Your task to perform on an android device: Open sound settings Image 0: 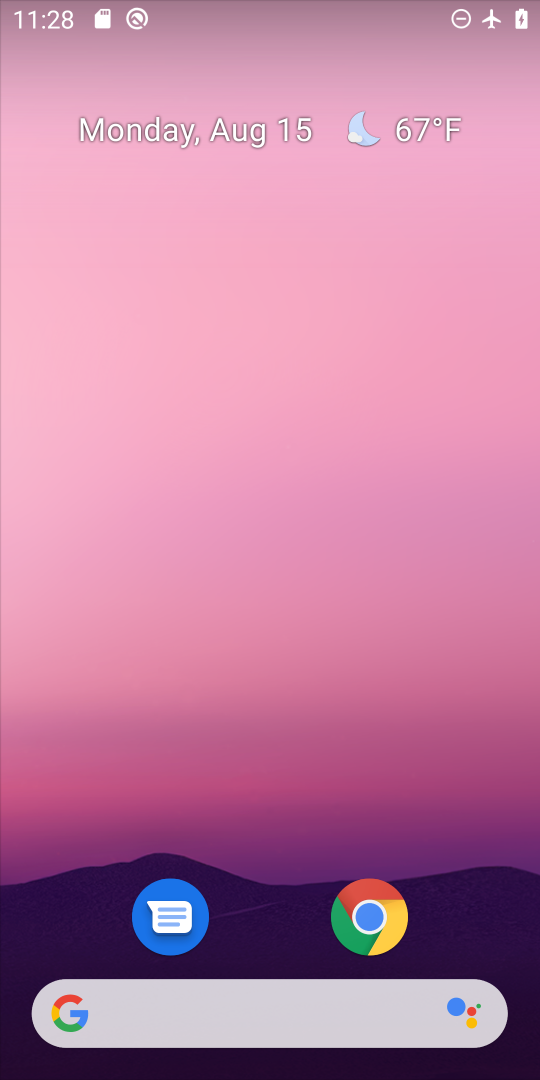
Step 0: drag from (296, 616) to (322, 0)
Your task to perform on an android device: Open sound settings Image 1: 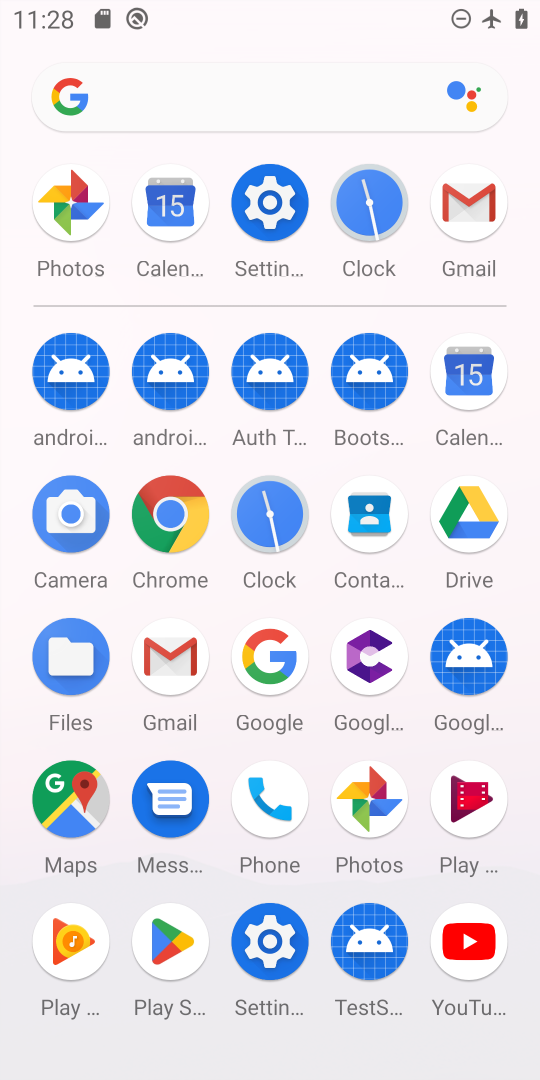
Step 1: click (279, 198)
Your task to perform on an android device: Open sound settings Image 2: 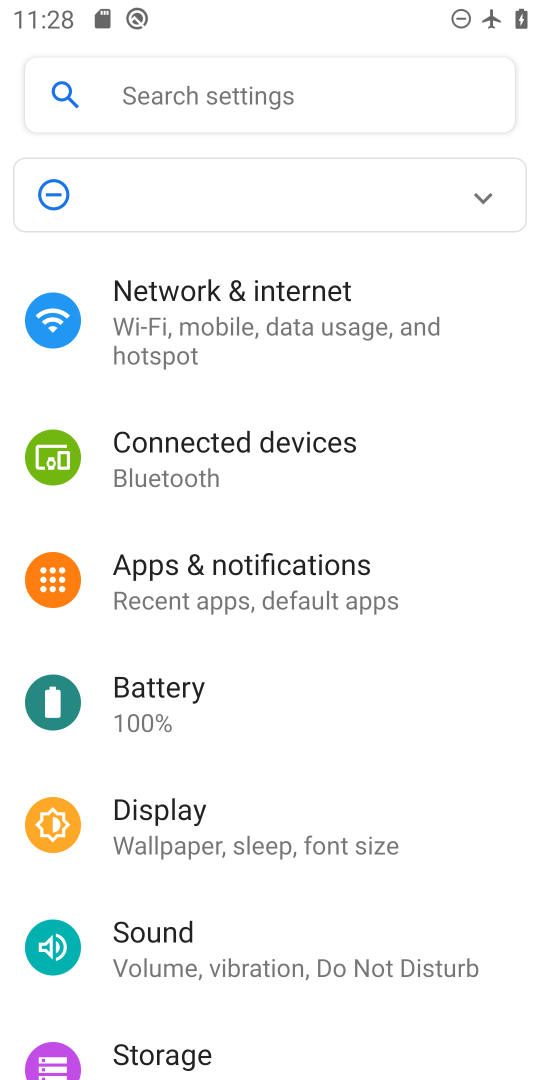
Step 2: click (260, 942)
Your task to perform on an android device: Open sound settings Image 3: 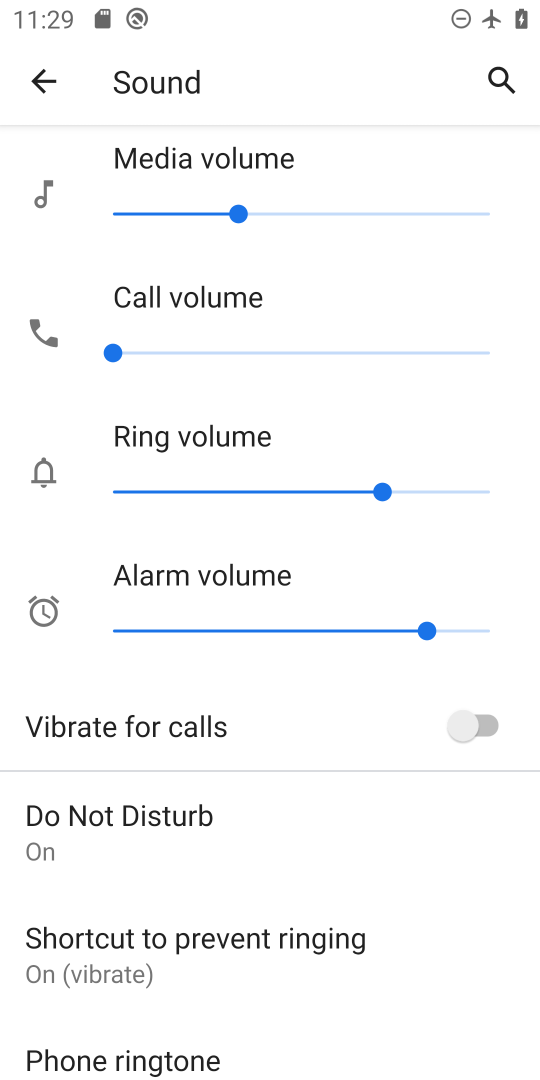
Step 3: task complete